Your task to perform on an android device: Turn off the flashlight Image 0: 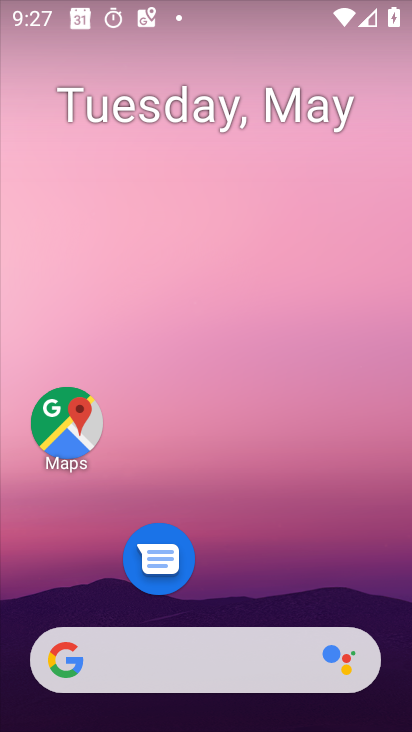
Step 0: drag from (339, 706) to (206, 10)
Your task to perform on an android device: Turn off the flashlight Image 1: 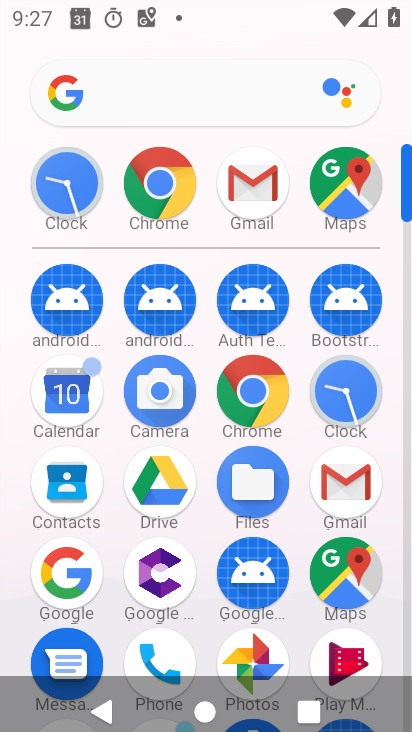
Step 1: task complete